Your task to perform on an android device: Toggle the flashlight Image 0: 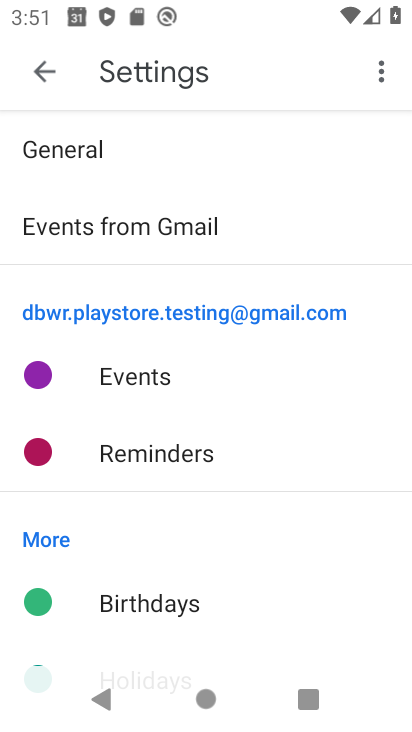
Step 0: press home button
Your task to perform on an android device: Toggle the flashlight Image 1: 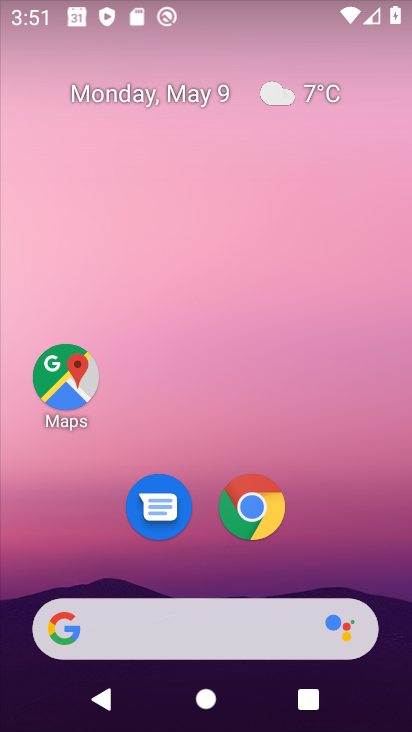
Step 1: drag from (275, 652) to (146, 118)
Your task to perform on an android device: Toggle the flashlight Image 2: 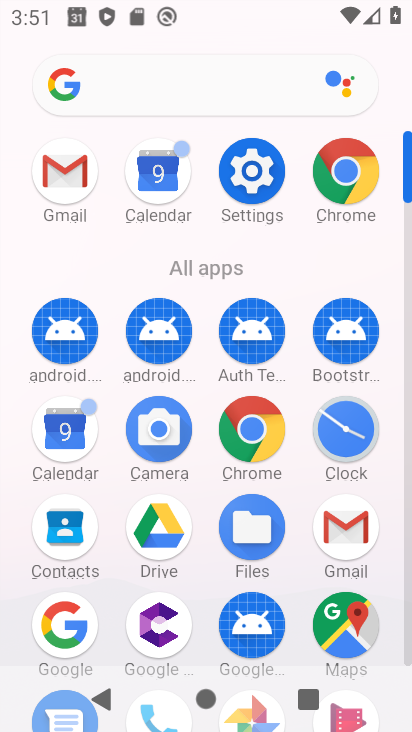
Step 2: click (257, 195)
Your task to perform on an android device: Toggle the flashlight Image 3: 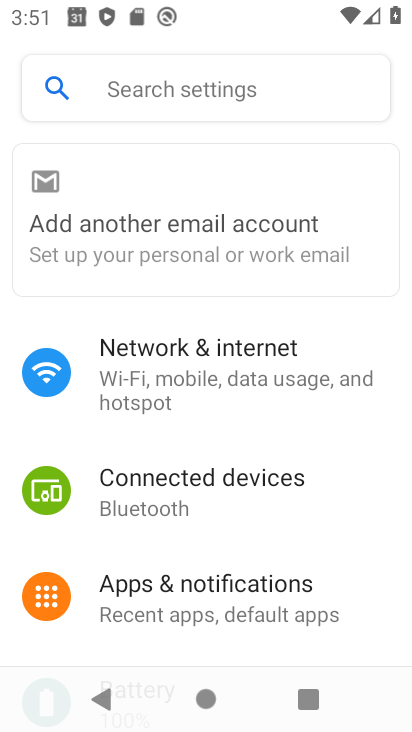
Step 3: click (152, 74)
Your task to perform on an android device: Toggle the flashlight Image 4: 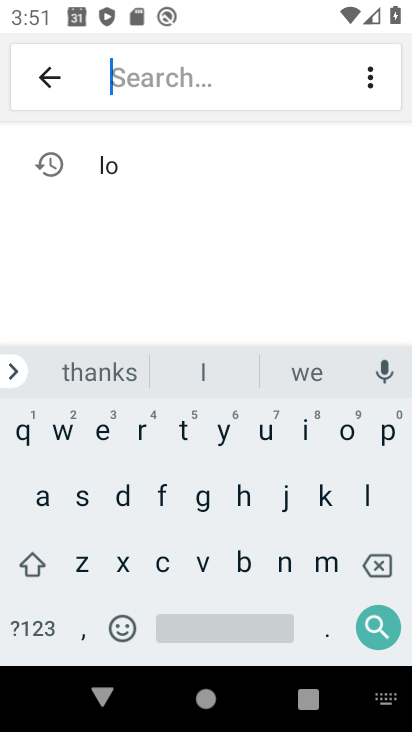
Step 4: click (166, 502)
Your task to perform on an android device: Toggle the flashlight Image 5: 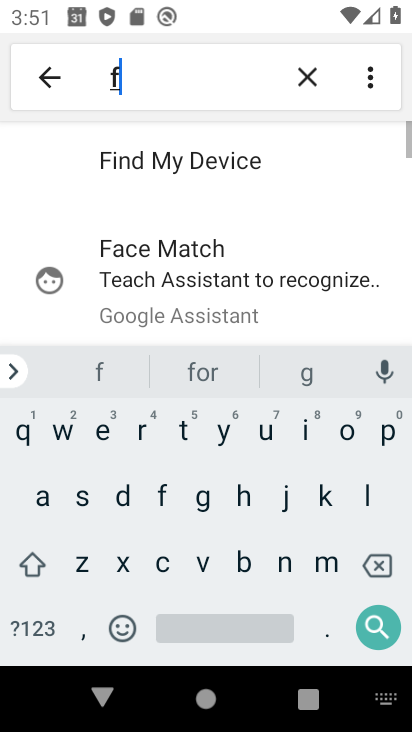
Step 5: click (365, 493)
Your task to perform on an android device: Toggle the flashlight Image 6: 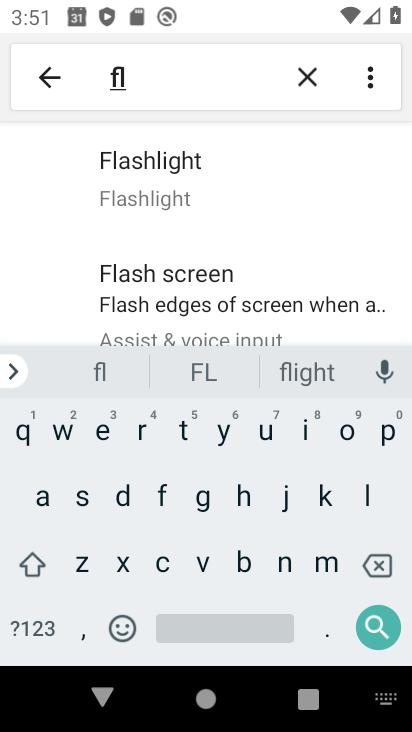
Step 6: click (155, 182)
Your task to perform on an android device: Toggle the flashlight Image 7: 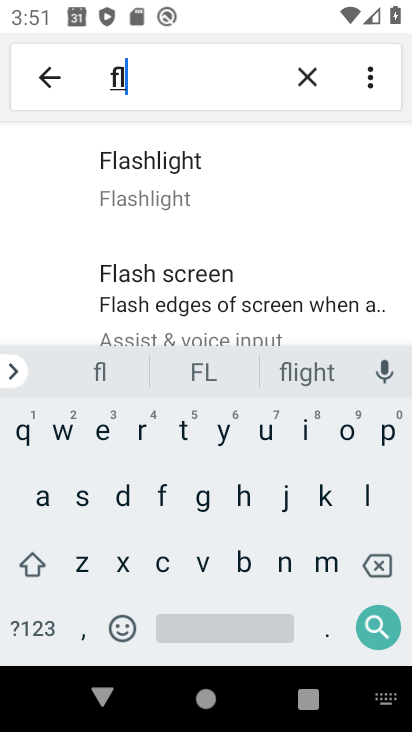
Step 7: task complete